Your task to perform on an android device: Go to display settings Image 0: 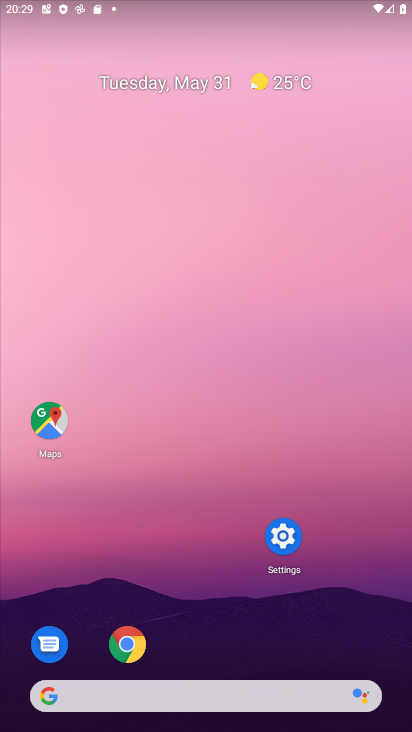
Step 0: drag from (180, 696) to (176, 385)
Your task to perform on an android device: Go to display settings Image 1: 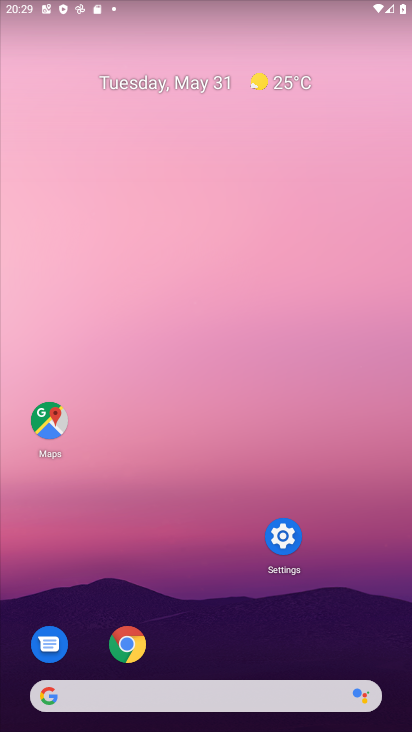
Step 1: drag from (185, 721) to (212, 134)
Your task to perform on an android device: Go to display settings Image 2: 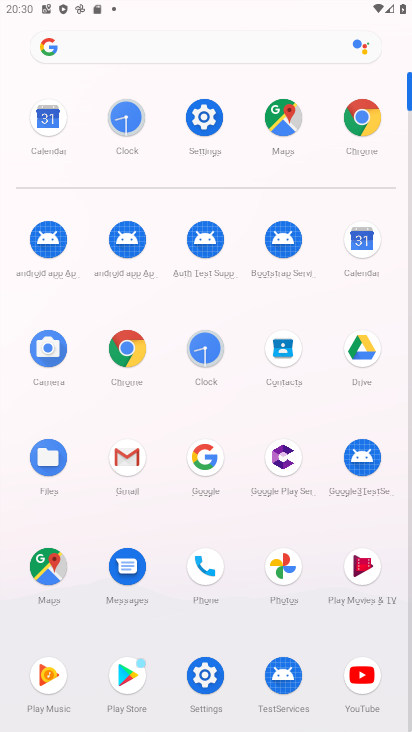
Step 2: click (198, 120)
Your task to perform on an android device: Go to display settings Image 3: 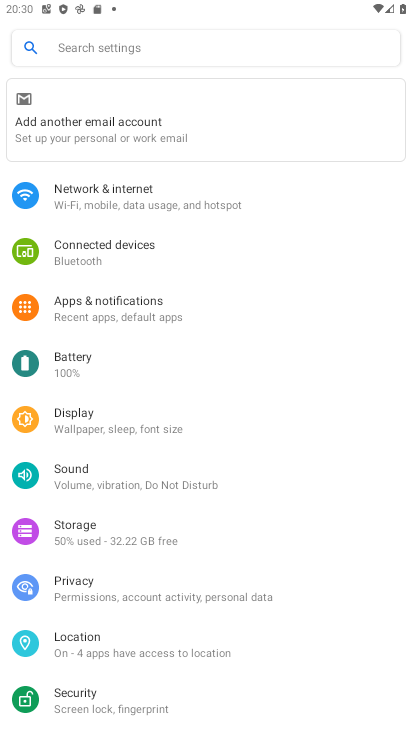
Step 3: click (93, 408)
Your task to perform on an android device: Go to display settings Image 4: 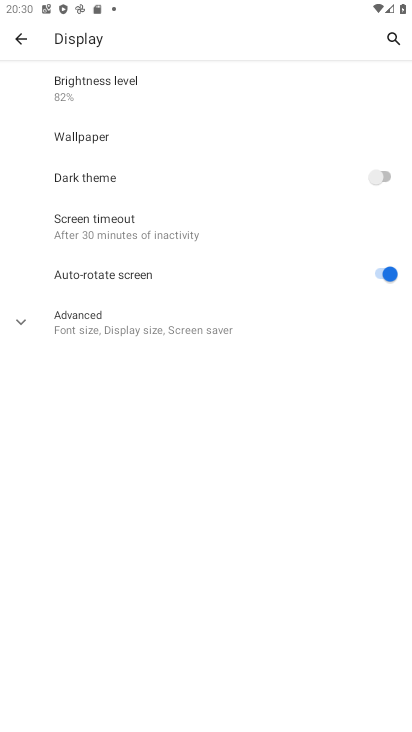
Step 4: task complete